Your task to perform on an android device: clear all cookies in the chrome app Image 0: 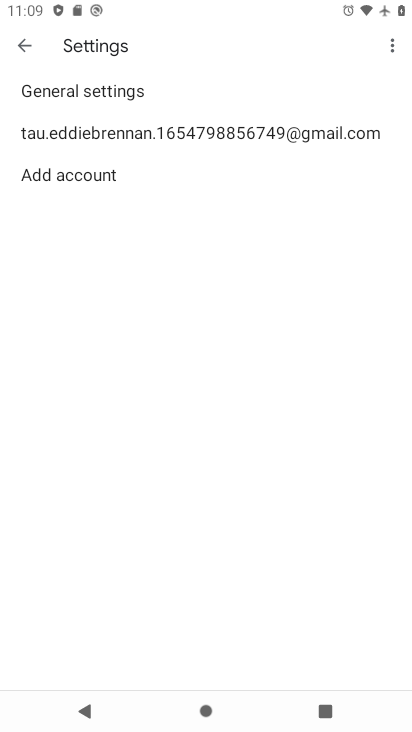
Step 0: press home button
Your task to perform on an android device: clear all cookies in the chrome app Image 1: 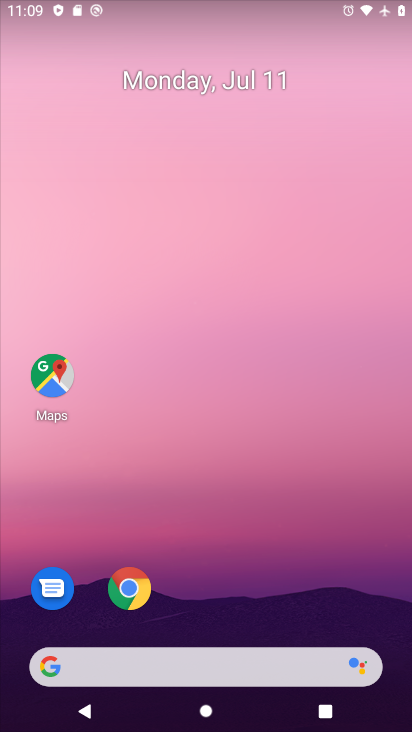
Step 1: click (130, 597)
Your task to perform on an android device: clear all cookies in the chrome app Image 2: 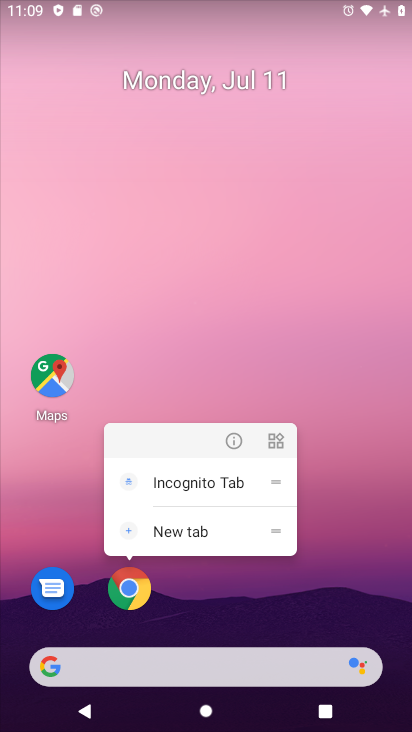
Step 2: click (131, 592)
Your task to perform on an android device: clear all cookies in the chrome app Image 3: 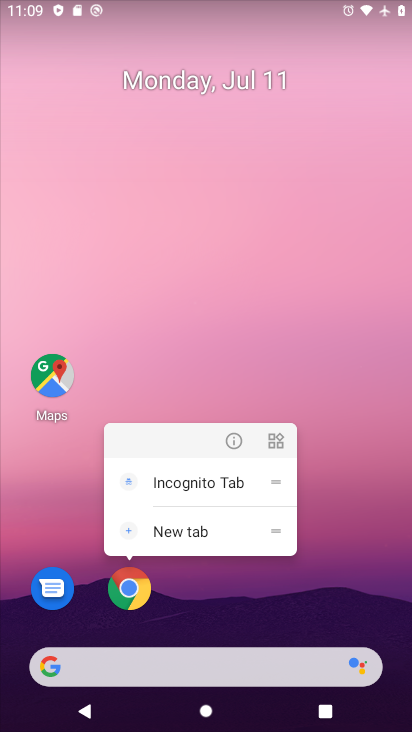
Step 3: click (135, 593)
Your task to perform on an android device: clear all cookies in the chrome app Image 4: 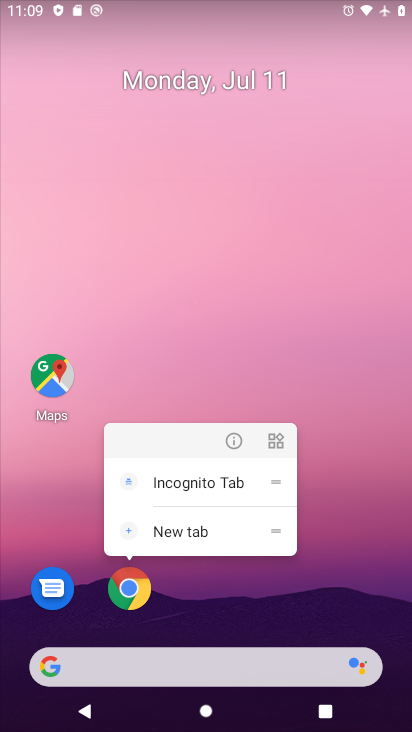
Step 4: click (128, 593)
Your task to perform on an android device: clear all cookies in the chrome app Image 5: 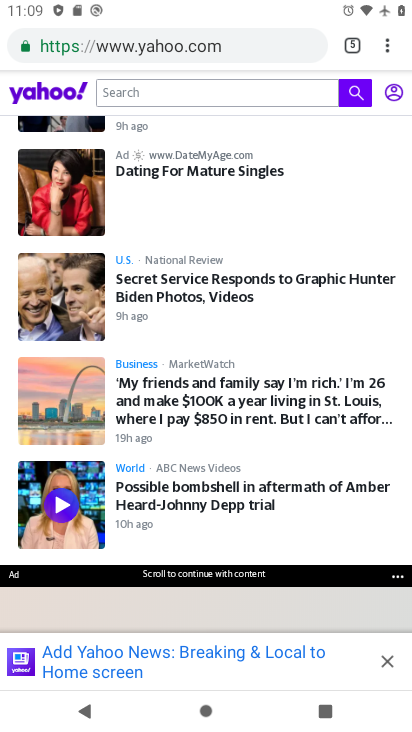
Step 5: drag from (389, 46) to (253, 551)
Your task to perform on an android device: clear all cookies in the chrome app Image 6: 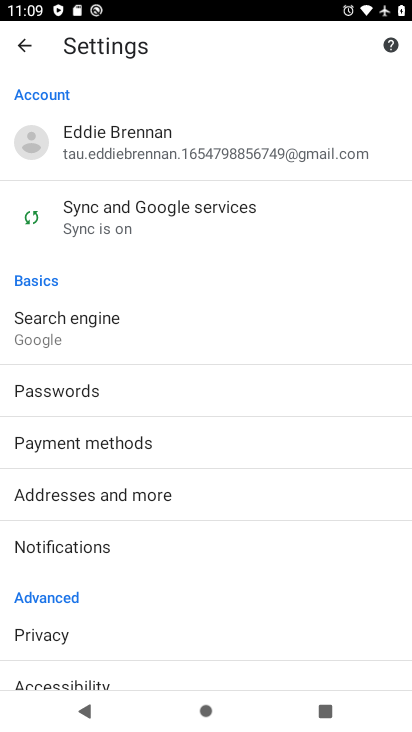
Step 6: click (62, 635)
Your task to perform on an android device: clear all cookies in the chrome app Image 7: 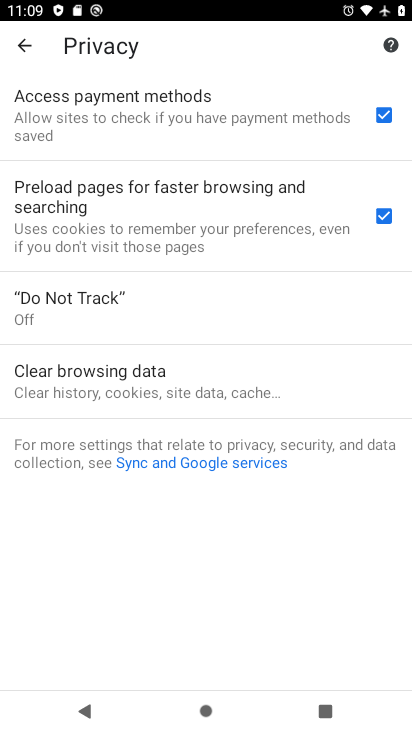
Step 7: click (224, 380)
Your task to perform on an android device: clear all cookies in the chrome app Image 8: 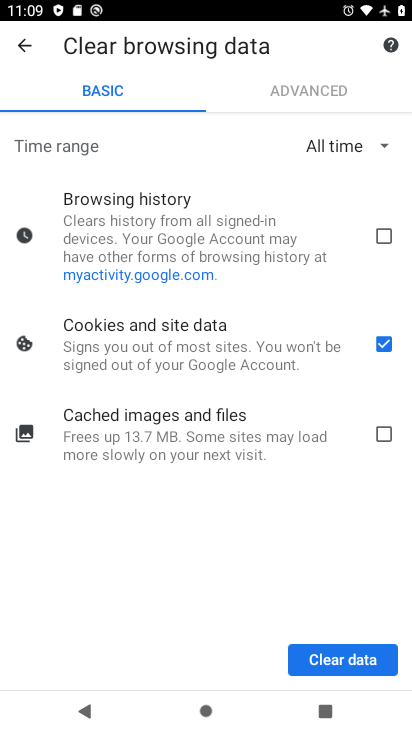
Step 8: click (337, 657)
Your task to perform on an android device: clear all cookies in the chrome app Image 9: 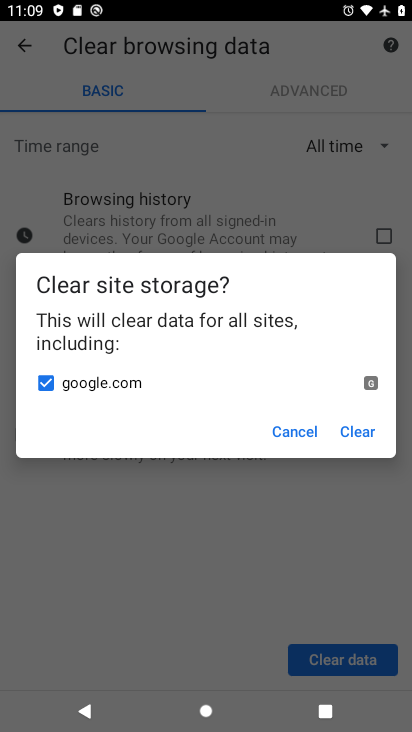
Step 9: click (351, 437)
Your task to perform on an android device: clear all cookies in the chrome app Image 10: 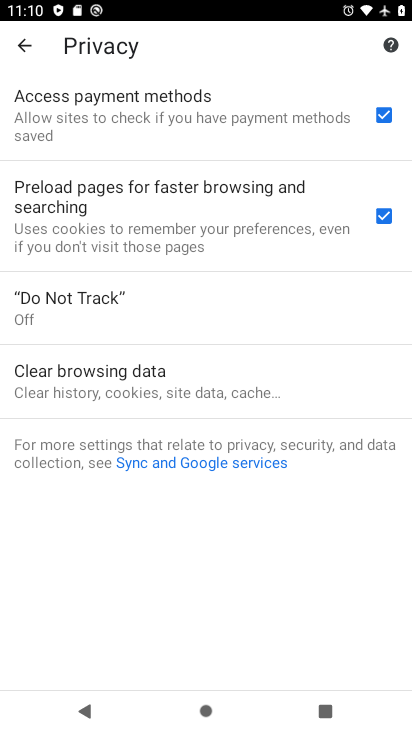
Step 10: task complete